Your task to perform on an android device: turn on the 24-hour format for clock Image 0: 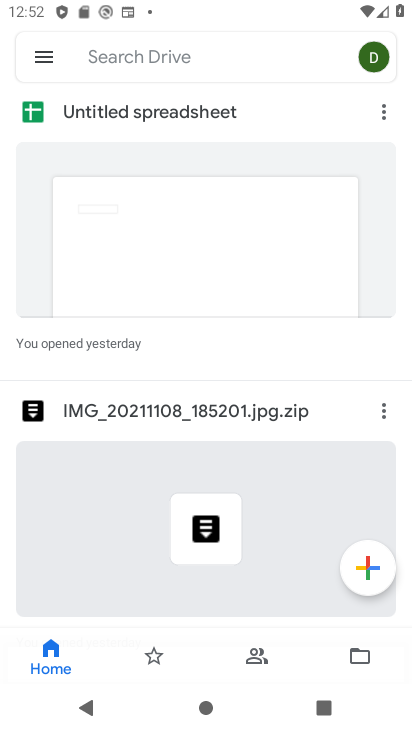
Step 0: press home button
Your task to perform on an android device: turn on the 24-hour format for clock Image 1: 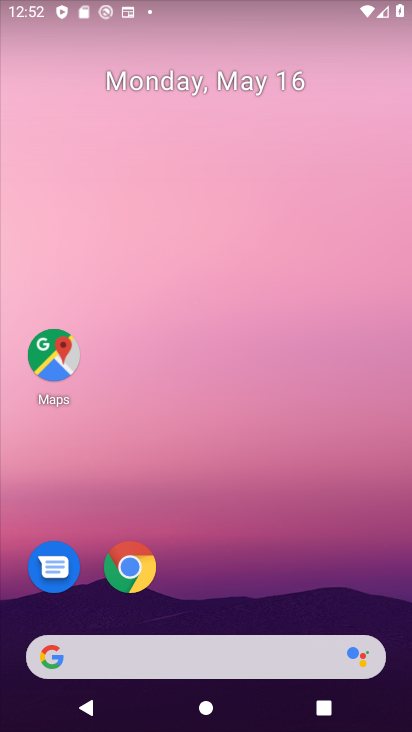
Step 1: drag from (236, 565) to (175, 137)
Your task to perform on an android device: turn on the 24-hour format for clock Image 2: 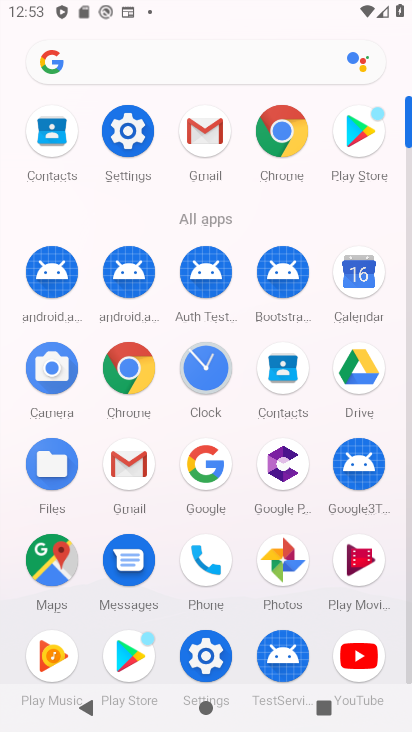
Step 2: click (216, 386)
Your task to perform on an android device: turn on the 24-hour format for clock Image 3: 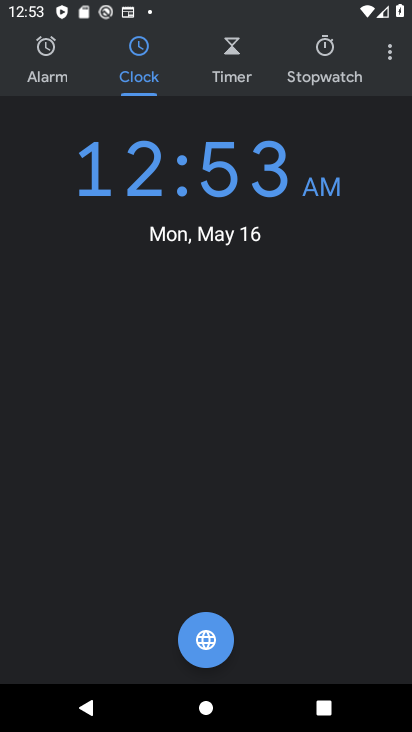
Step 3: click (395, 50)
Your task to perform on an android device: turn on the 24-hour format for clock Image 4: 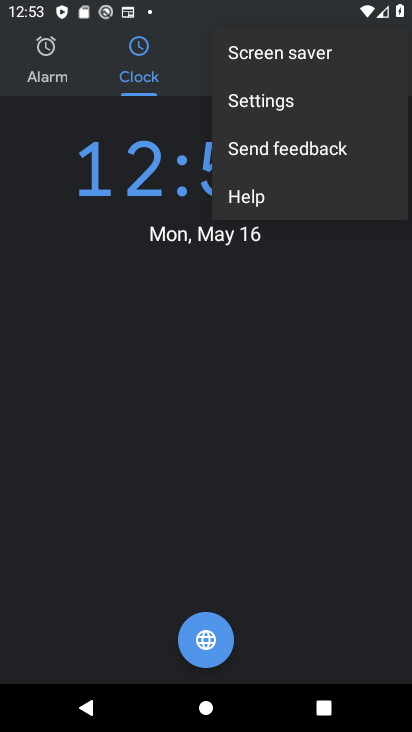
Step 4: click (338, 113)
Your task to perform on an android device: turn on the 24-hour format for clock Image 5: 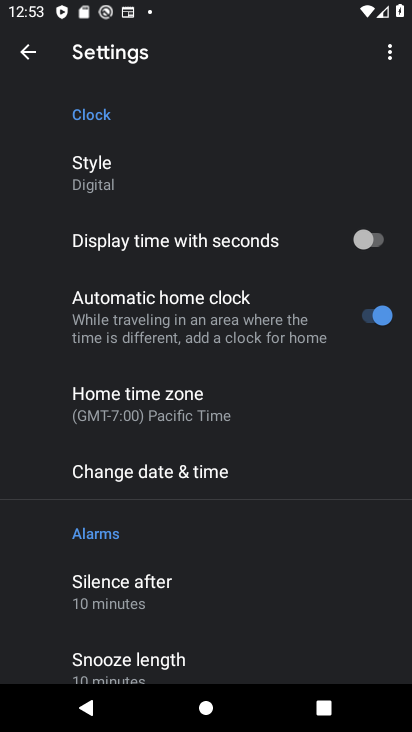
Step 5: click (289, 480)
Your task to perform on an android device: turn on the 24-hour format for clock Image 6: 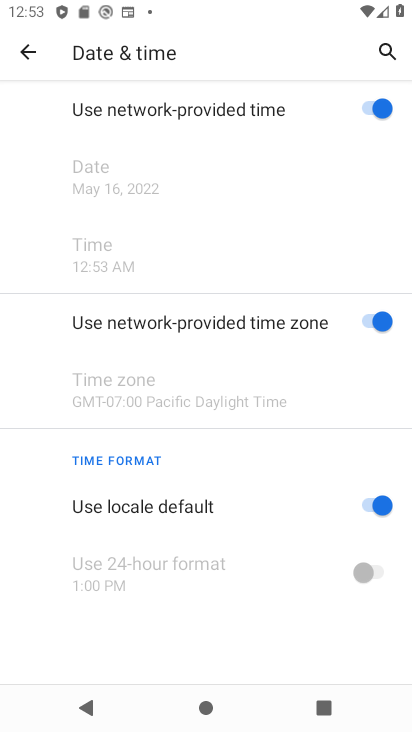
Step 6: click (376, 506)
Your task to perform on an android device: turn on the 24-hour format for clock Image 7: 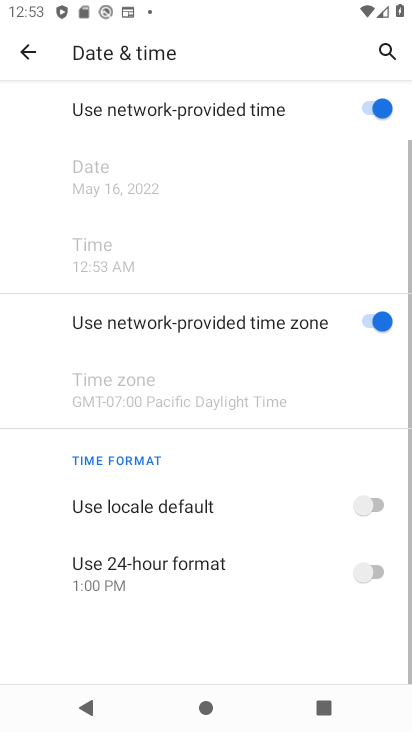
Step 7: click (371, 574)
Your task to perform on an android device: turn on the 24-hour format for clock Image 8: 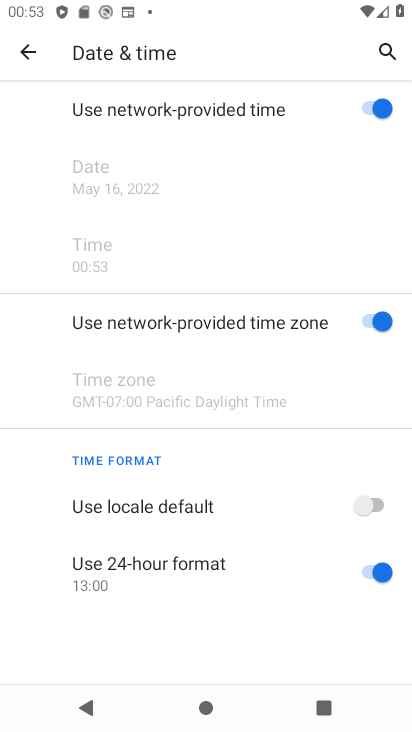
Step 8: task complete